Your task to perform on an android device: Open CNN.com Image 0: 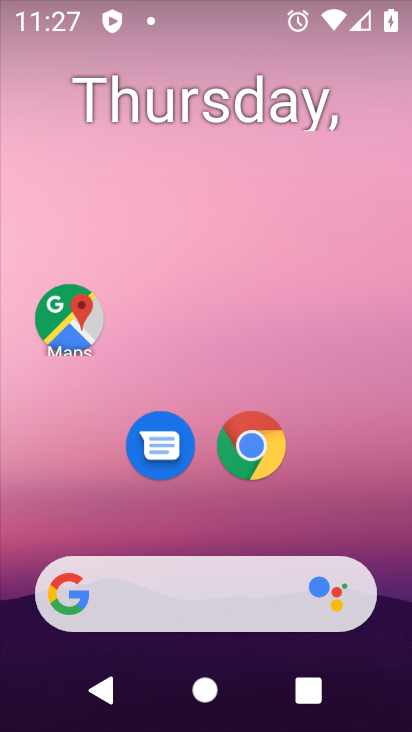
Step 0: drag from (336, 465) to (398, 109)
Your task to perform on an android device: Open CNN.com Image 1: 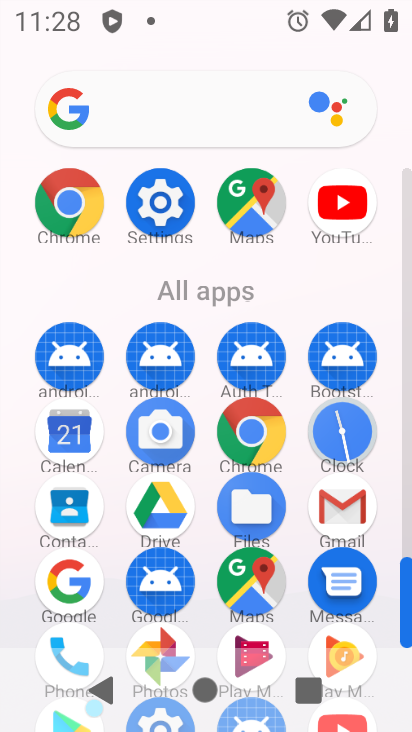
Step 1: click (69, 183)
Your task to perform on an android device: Open CNN.com Image 2: 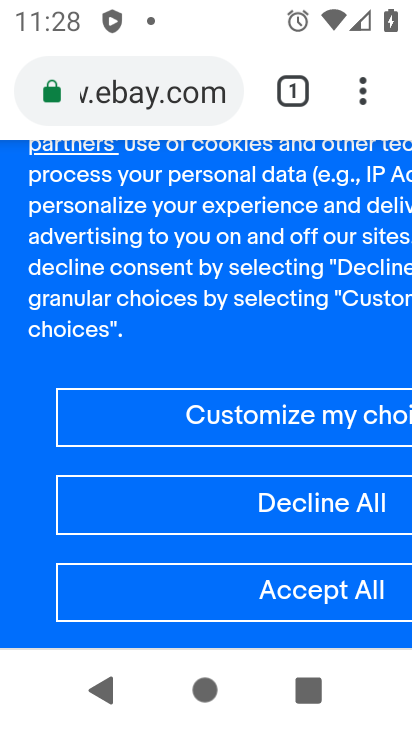
Step 2: click (197, 99)
Your task to perform on an android device: Open CNN.com Image 3: 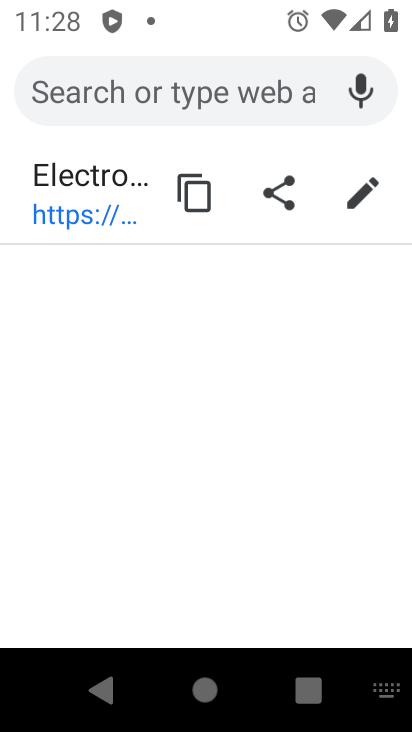
Step 3: type "cnn.com"
Your task to perform on an android device: Open CNN.com Image 4: 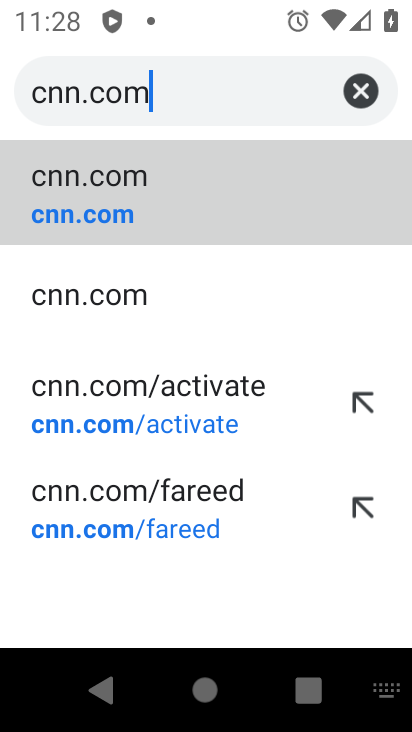
Step 4: click (44, 203)
Your task to perform on an android device: Open CNN.com Image 5: 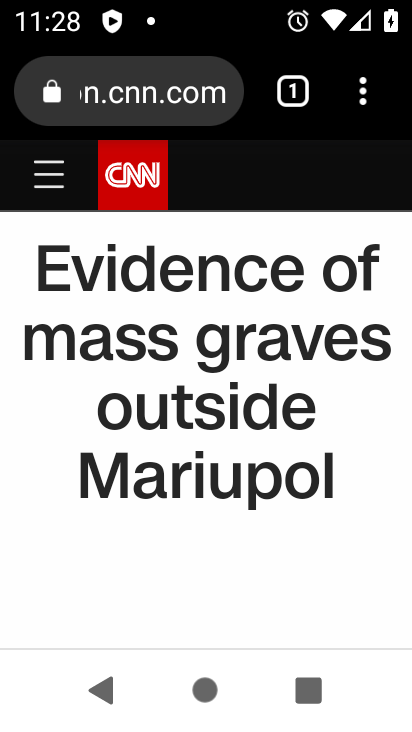
Step 5: task complete